Your task to perform on an android device: Open Android settings Image 0: 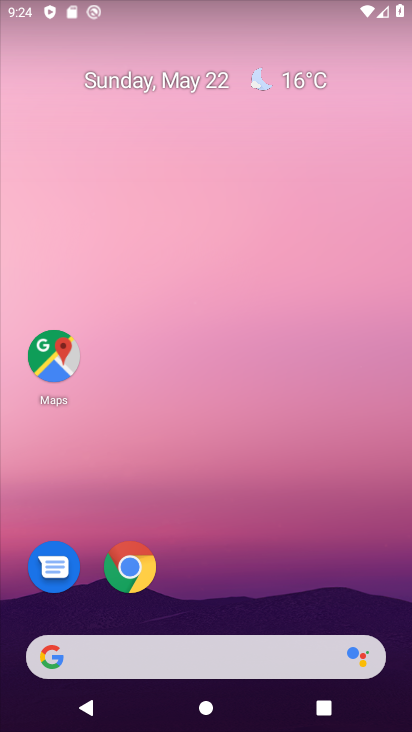
Step 0: drag from (233, 640) to (170, 6)
Your task to perform on an android device: Open Android settings Image 1: 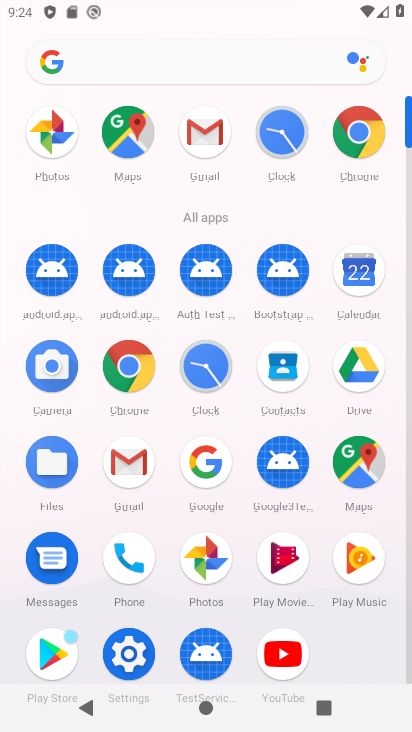
Step 1: click (130, 656)
Your task to perform on an android device: Open Android settings Image 2: 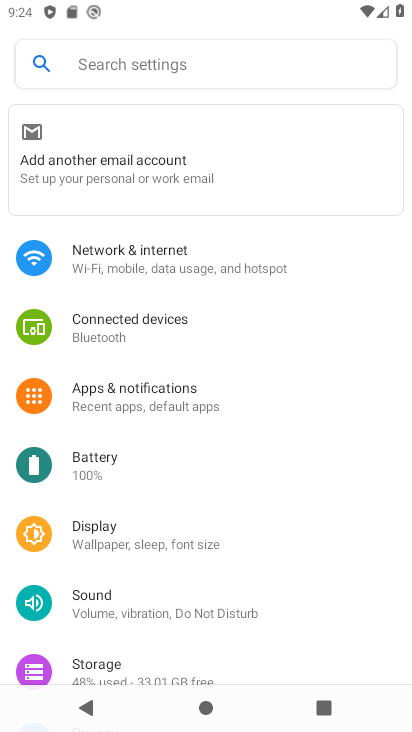
Step 2: drag from (247, 607) to (162, 14)
Your task to perform on an android device: Open Android settings Image 3: 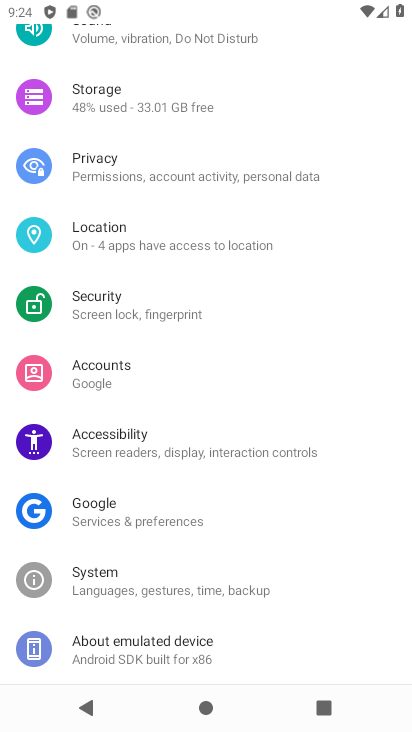
Step 3: click (154, 643)
Your task to perform on an android device: Open Android settings Image 4: 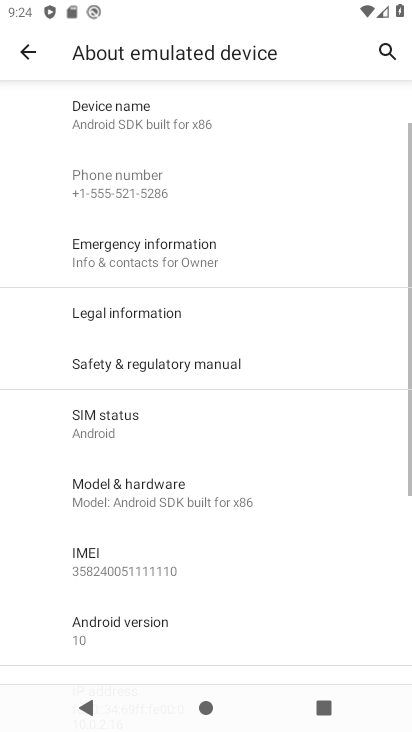
Step 4: task complete